Your task to perform on an android device: search for starred emails in the gmail app Image 0: 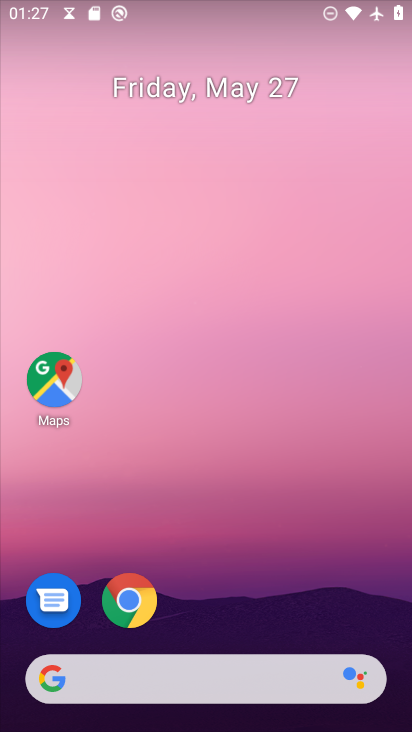
Step 0: click (267, 26)
Your task to perform on an android device: search for starred emails in the gmail app Image 1: 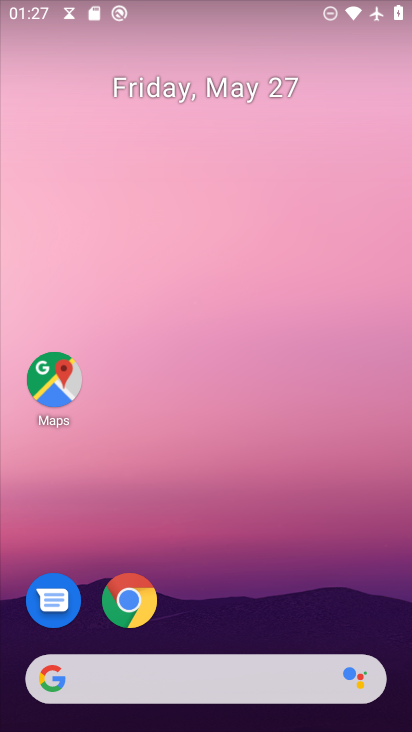
Step 1: drag from (235, 586) to (275, 2)
Your task to perform on an android device: search for starred emails in the gmail app Image 2: 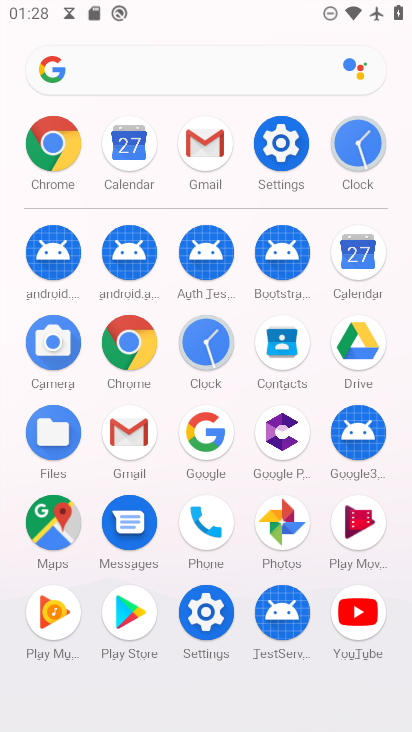
Step 2: click (147, 428)
Your task to perform on an android device: search for starred emails in the gmail app Image 3: 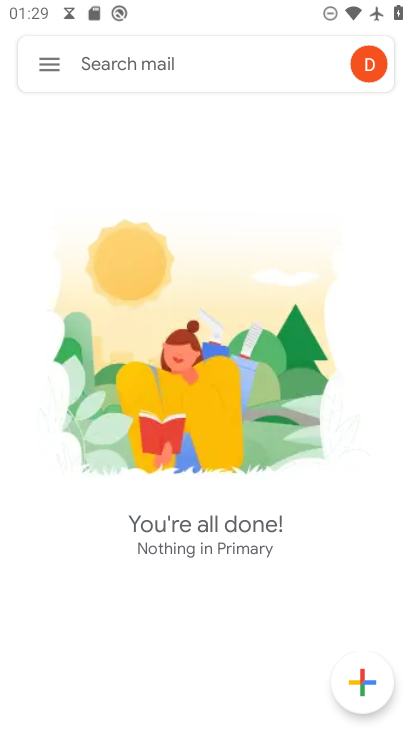
Step 3: click (68, 61)
Your task to perform on an android device: search for starred emails in the gmail app Image 4: 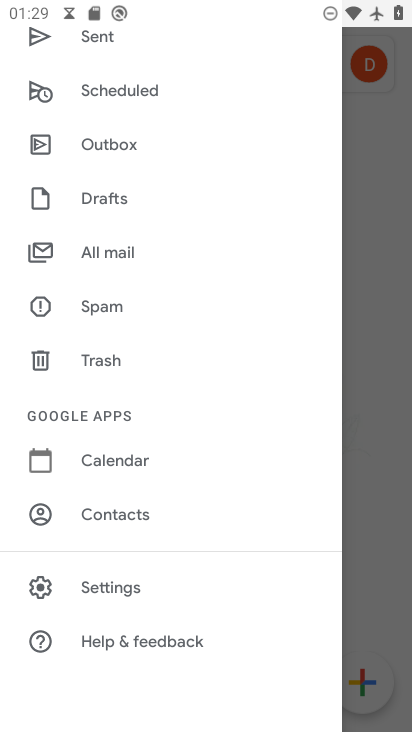
Step 4: drag from (167, 128) to (130, 507)
Your task to perform on an android device: search for starred emails in the gmail app Image 5: 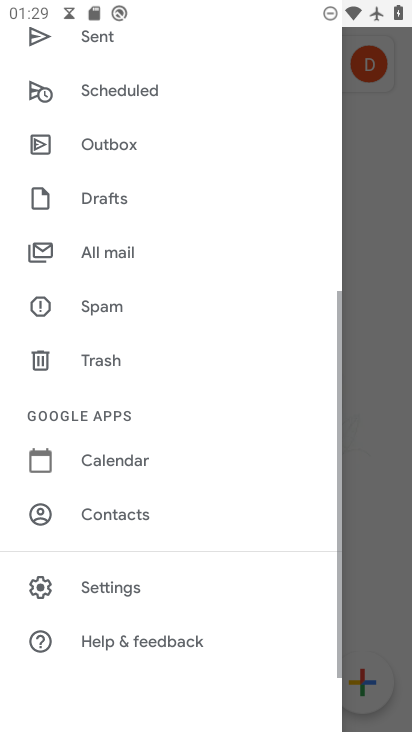
Step 5: drag from (209, 164) to (223, 576)
Your task to perform on an android device: search for starred emails in the gmail app Image 6: 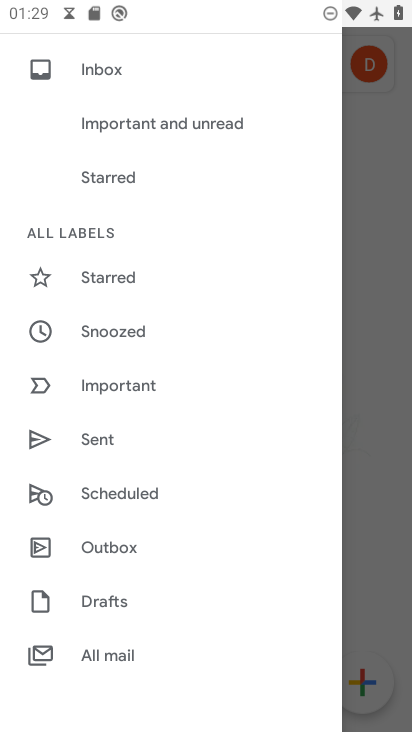
Step 6: click (148, 283)
Your task to perform on an android device: search for starred emails in the gmail app Image 7: 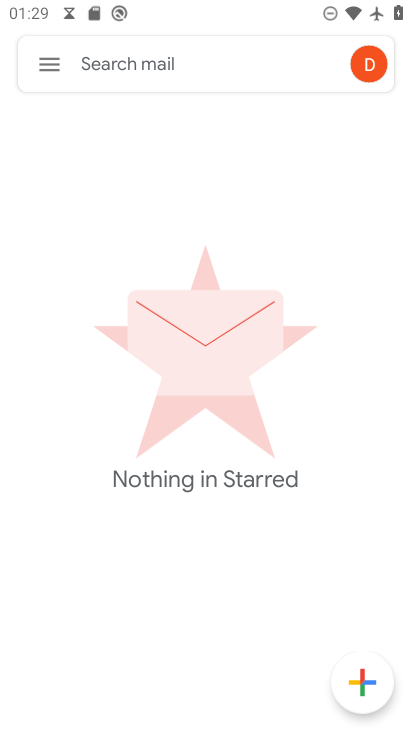
Step 7: task complete